Your task to perform on an android device: Go to CNN.com Image 0: 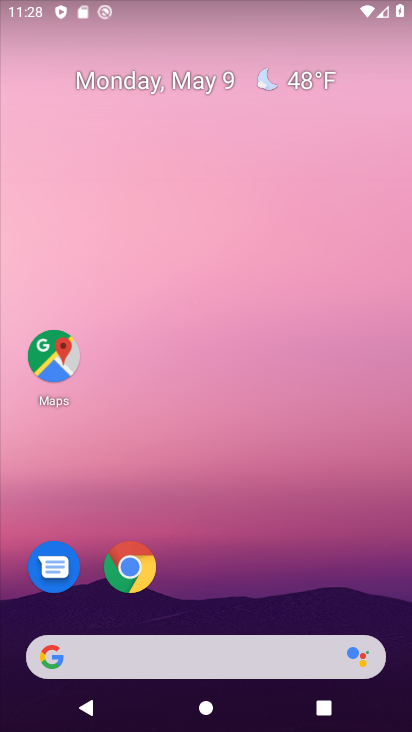
Step 0: click (139, 581)
Your task to perform on an android device: Go to CNN.com Image 1: 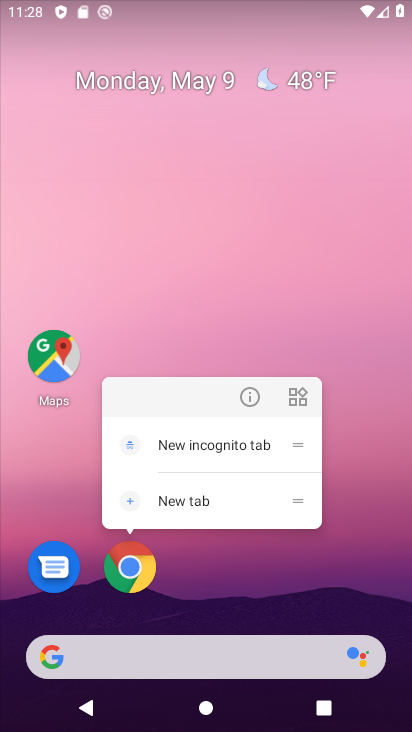
Step 1: click (136, 580)
Your task to perform on an android device: Go to CNN.com Image 2: 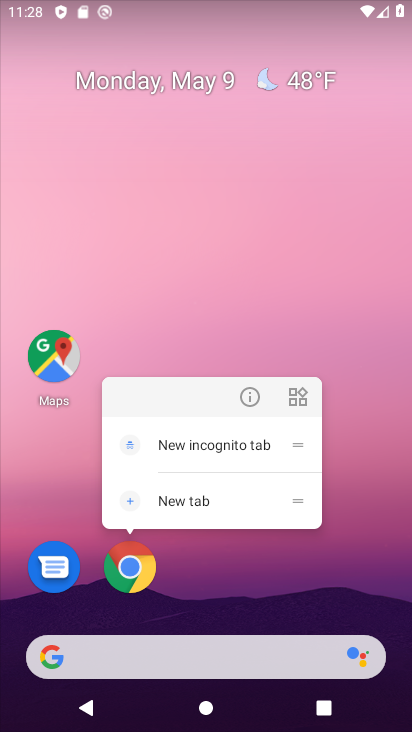
Step 2: click (135, 579)
Your task to perform on an android device: Go to CNN.com Image 3: 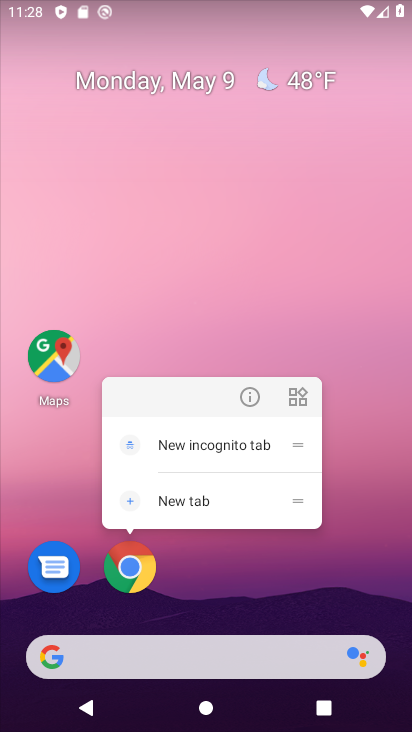
Step 3: click (138, 572)
Your task to perform on an android device: Go to CNN.com Image 4: 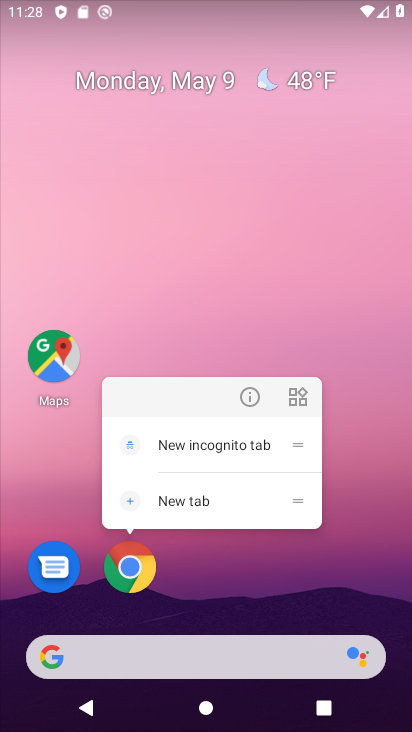
Step 4: click (124, 566)
Your task to perform on an android device: Go to CNN.com Image 5: 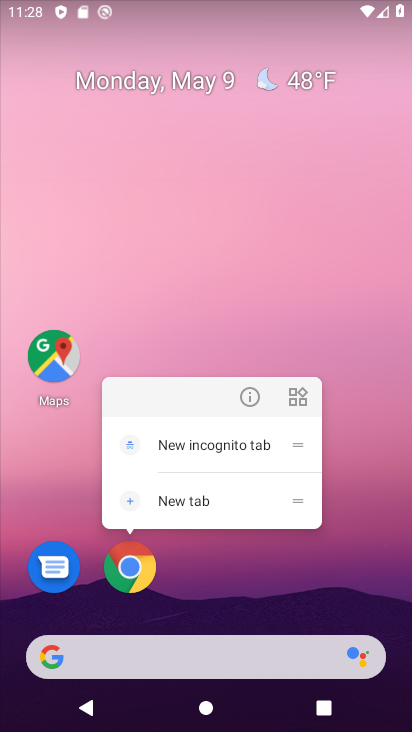
Step 5: click (135, 555)
Your task to perform on an android device: Go to CNN.com Image 6: 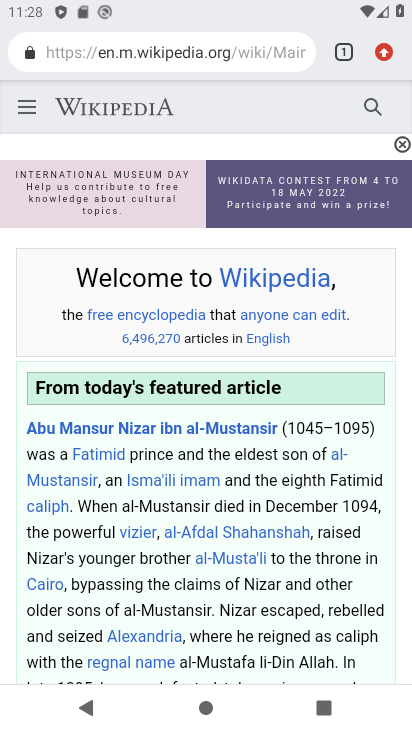
Step 6: click (253, 53)
Your task to perform on an android device: Go to CNN.com Image 7: 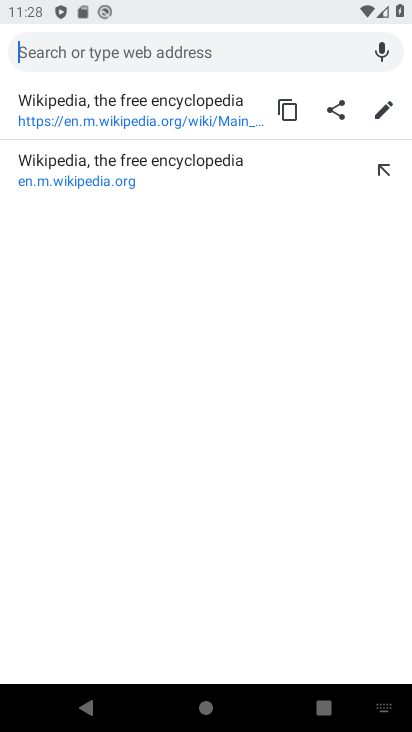
Step 7: type "CNN.com"
Your task to perform on an android device: Go to CNN.com Image 8: 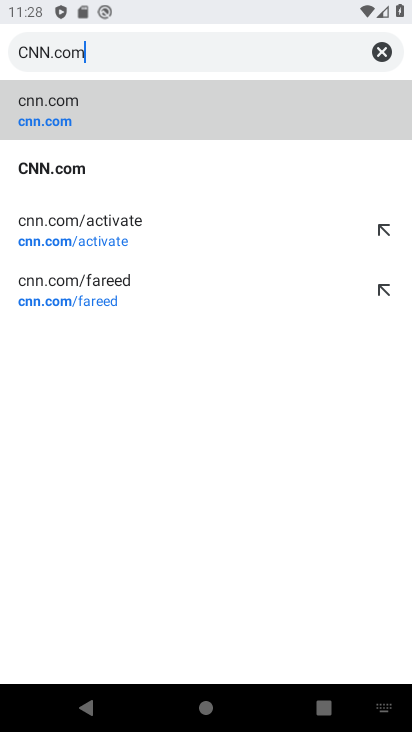
Step 8: click (82, 178)
Your task to perform on an android device: Go to CNN.com Image 9: 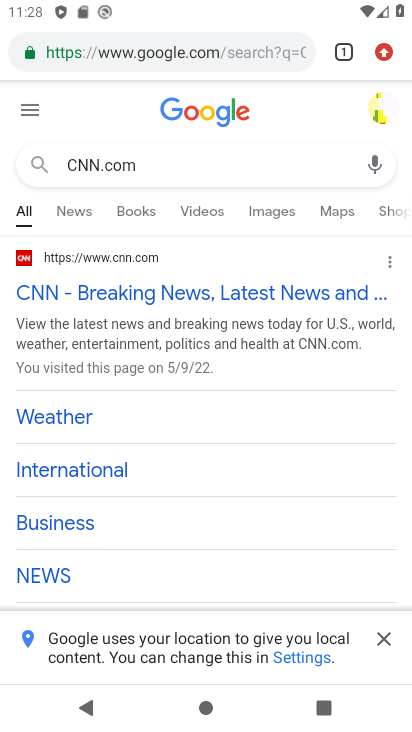
Step 9: click (121, 295)
Your task to perform on an android device: Go to CNN.com Image 10: 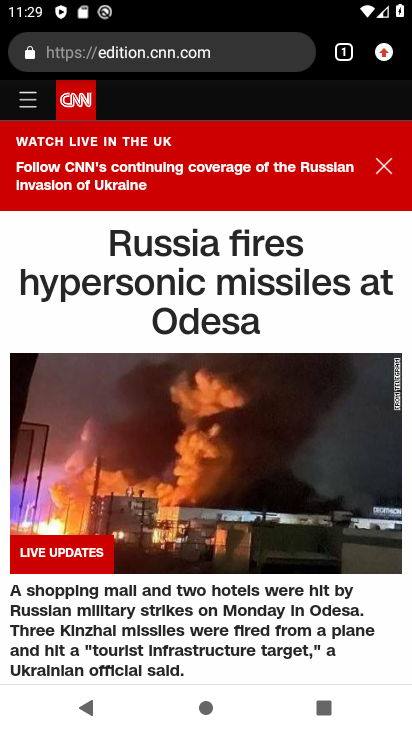
Step 10: task complete